Your task to perform on an android device: Open Chrome and go to settings Image 0: 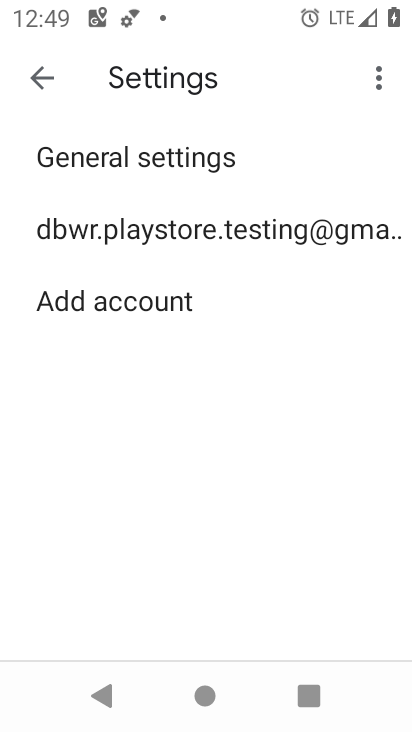
Step 0: press home button
Your task to perform on an android device: Open Chrome and go to settings Image 1: 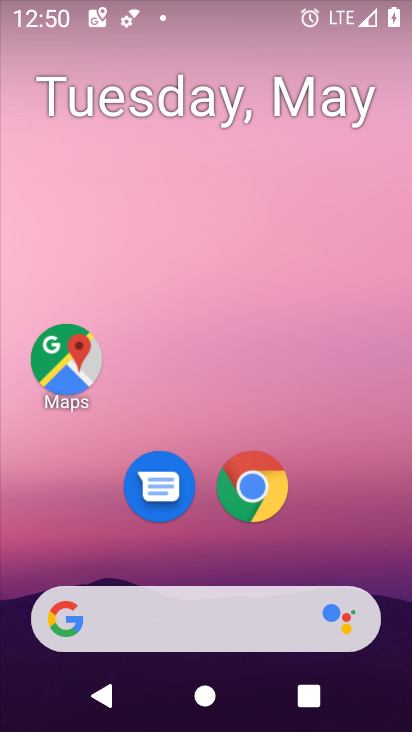
Step 1: click (249, 499)
Your task to perform on an android device: Open Chrome and go to settings Image 2: 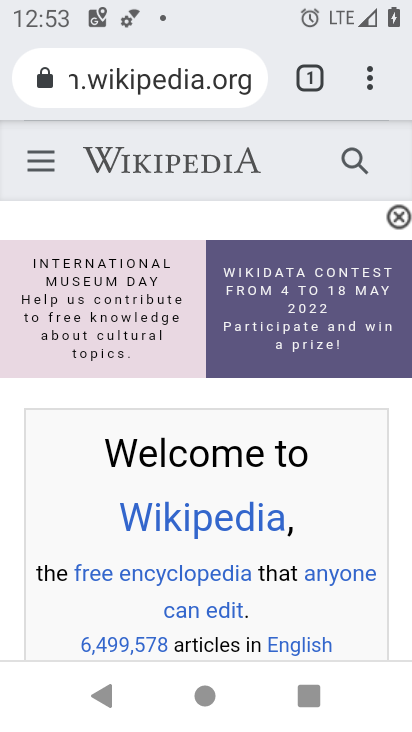
Step 2: click (358, 72)
Your task to perform on an android device: Open Chrome and go to settings Image 3: 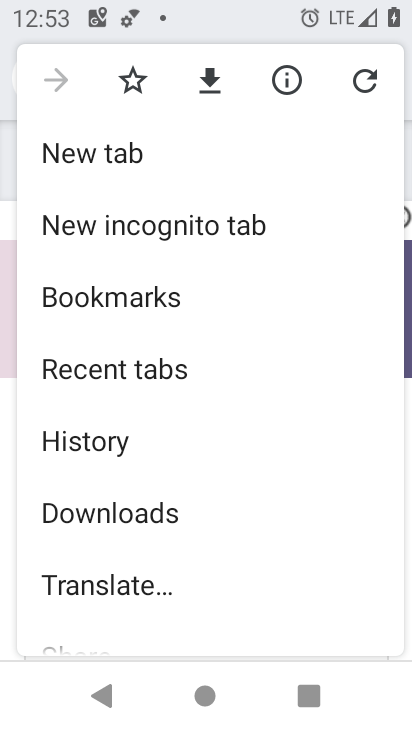
Step 3: drag from (32, 620) to (306, 81)
Your task to perform on an android device: Open Chrome and go to settings Image 4: 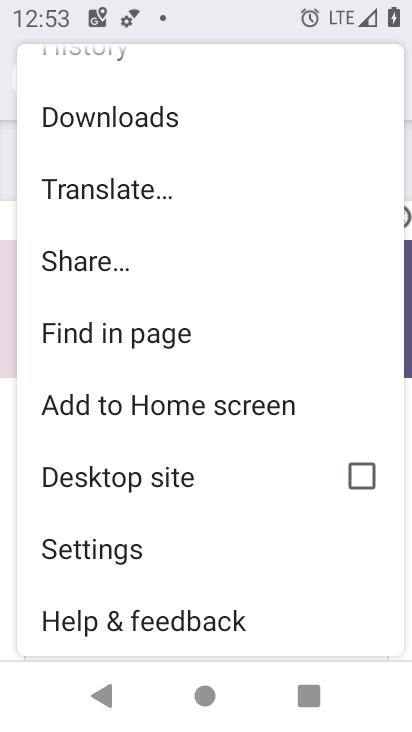
Step 4: click (98, 553)
Your task to perform on an android device: Open Chrome and go to settings Image 5: 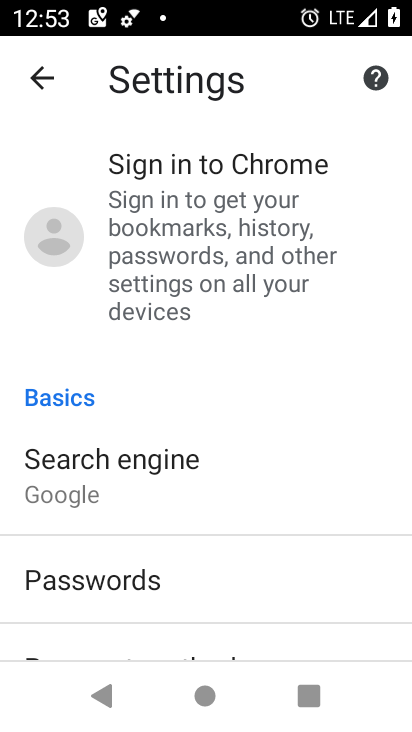
Step 5: task complete